Your task to perform on an android device: Open Google Chrome Image 0: 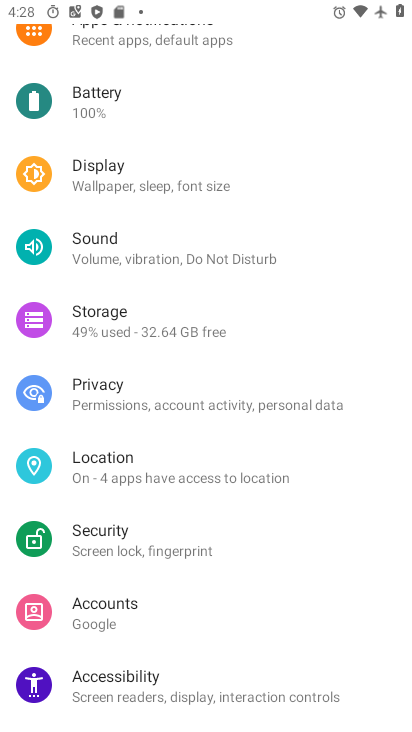
Step 0: press back button
Your task to perform on an android device: Open Google Chrome Image 1: 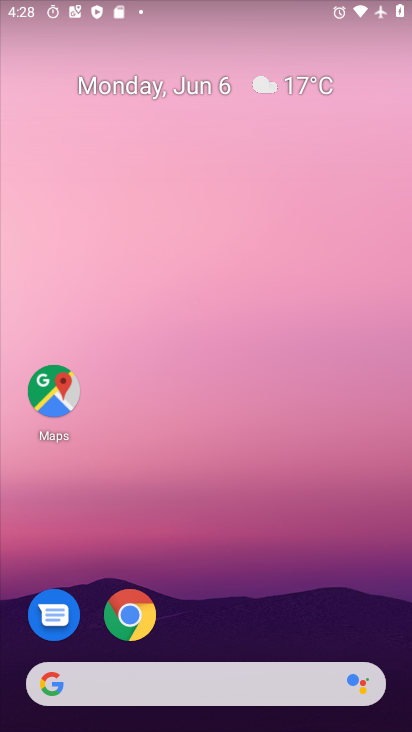
Step 1: drag from (236, 611) to (232, 3)
Your task to perform on an android device: Open Google Chrome Image 2: 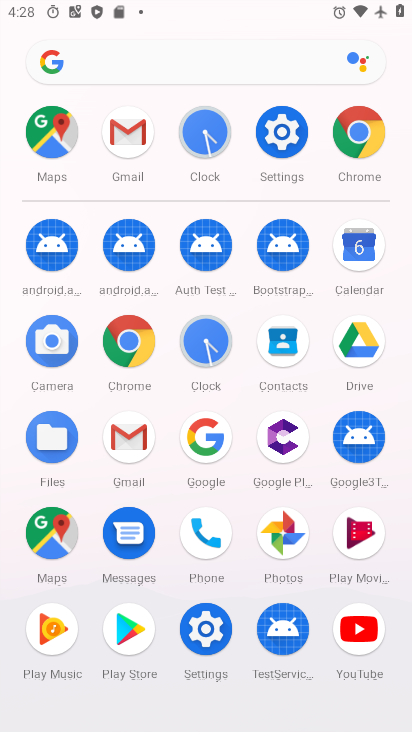
Step 2: click (123, 340)
Your task to perform on an android device: Open Google Chrome Image 3: 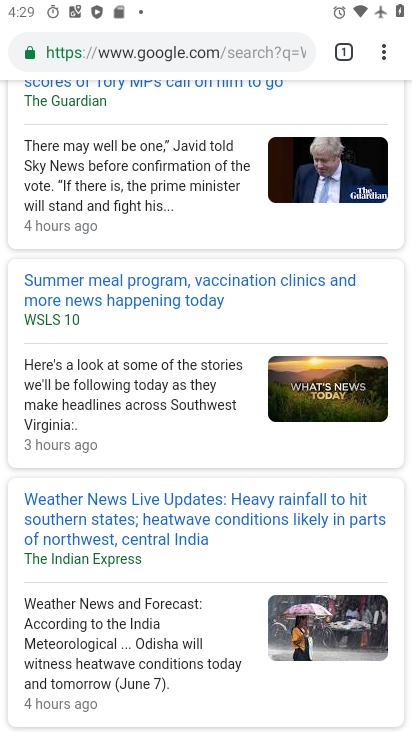
Step 3: task complete